Your task to perform on an android device: Go to location settings Image 0: 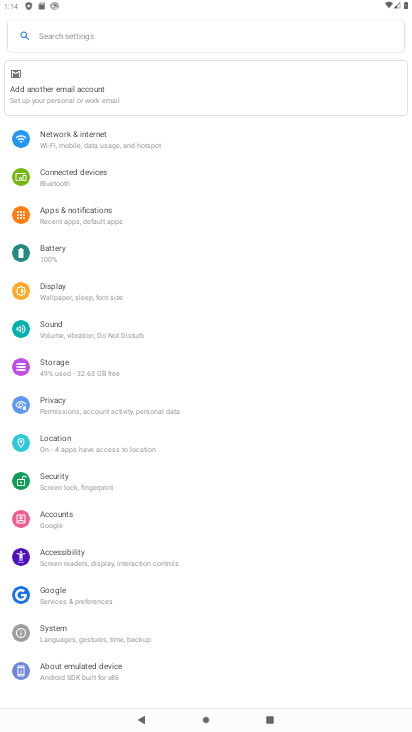
Step 0: click (72, 450)
Your task to perform on an android device: Go to location settings Image 1: 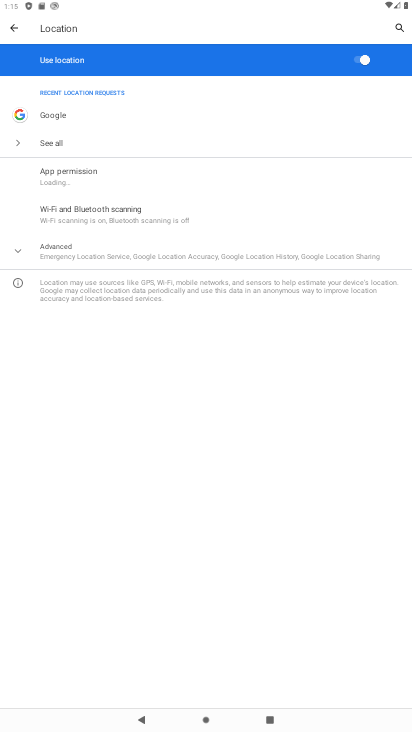
Step 1: task complete